Your task to perform on an android device: Open network settings Image 0: 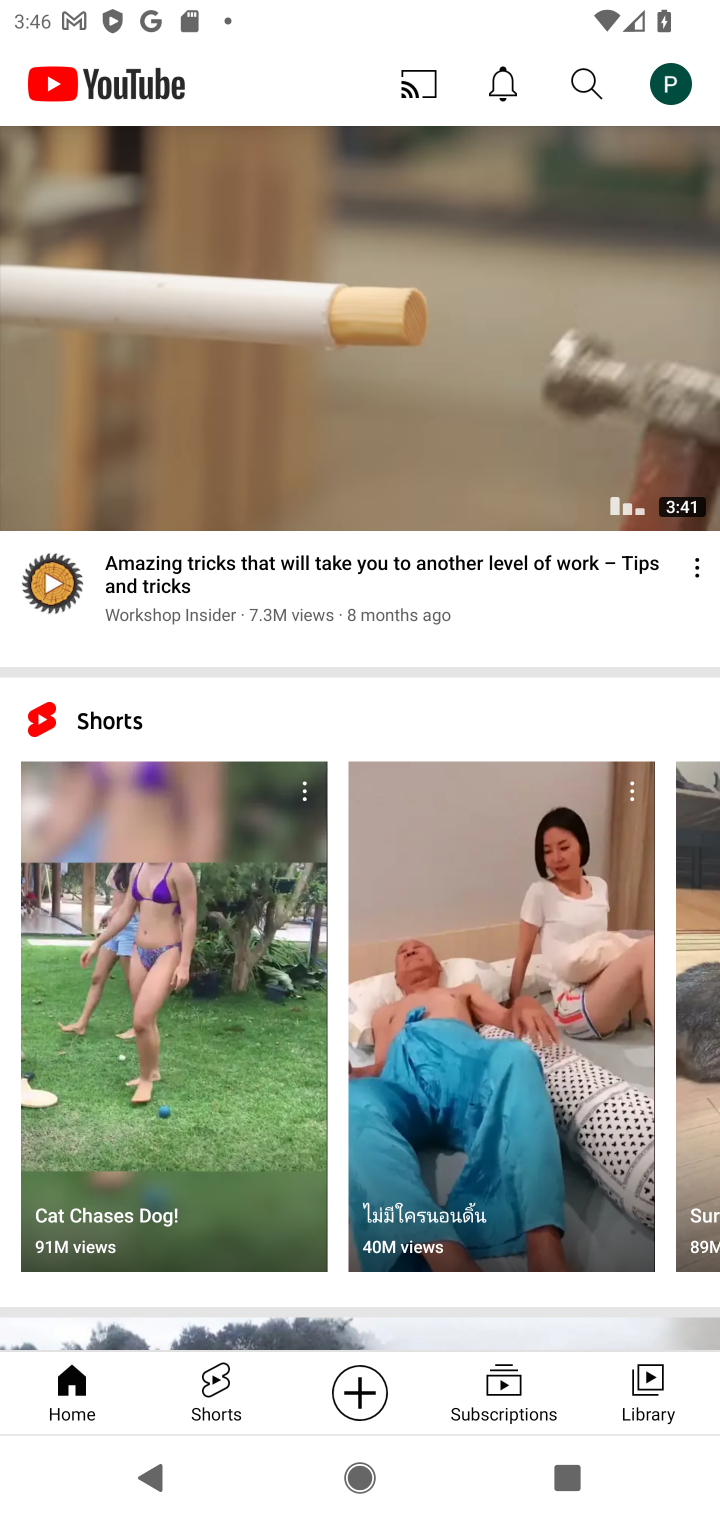
Step 0: press home button
Your task to perform on an android device: Open network settings Image 1: 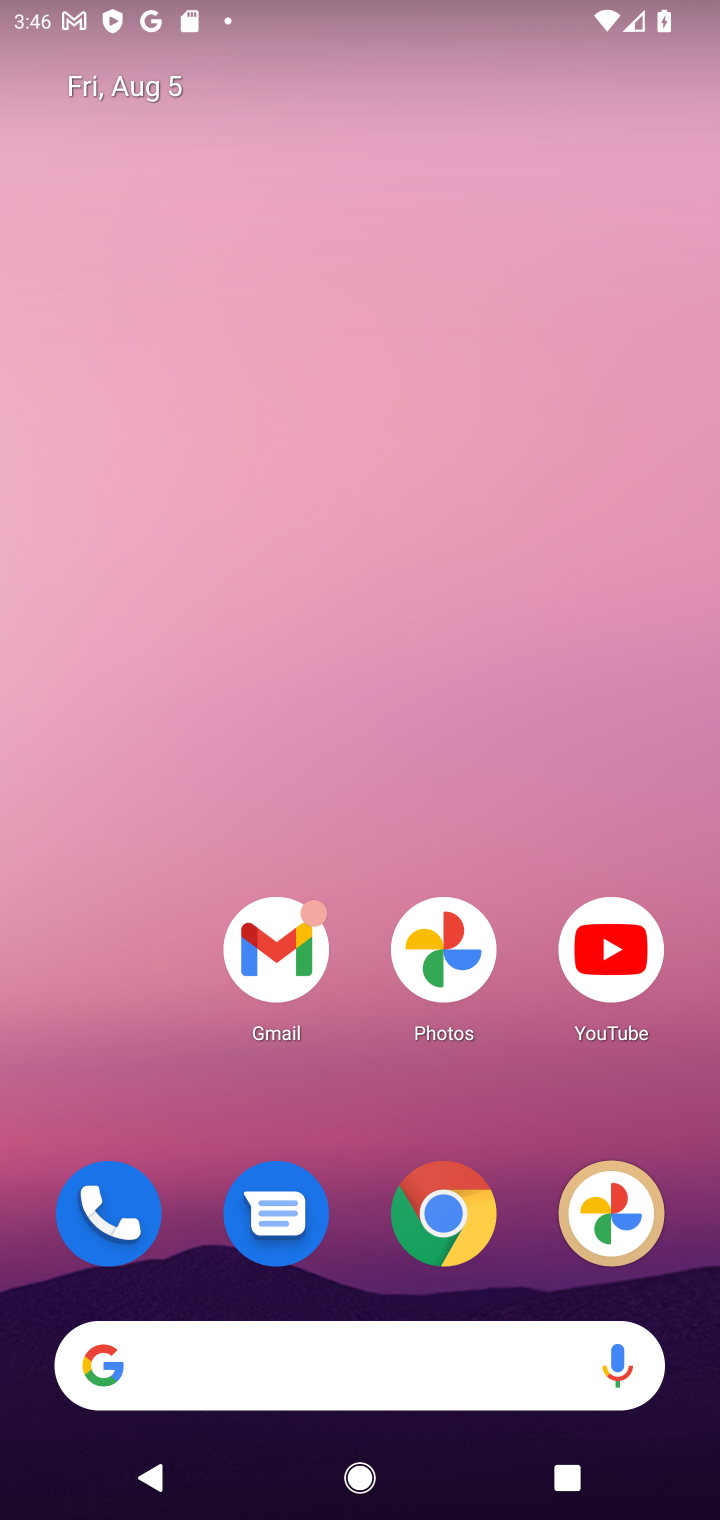
Step 1: drag from (337, 1297) to (404, 26)
Your task to perform on an android device: Open network settings Image 2: 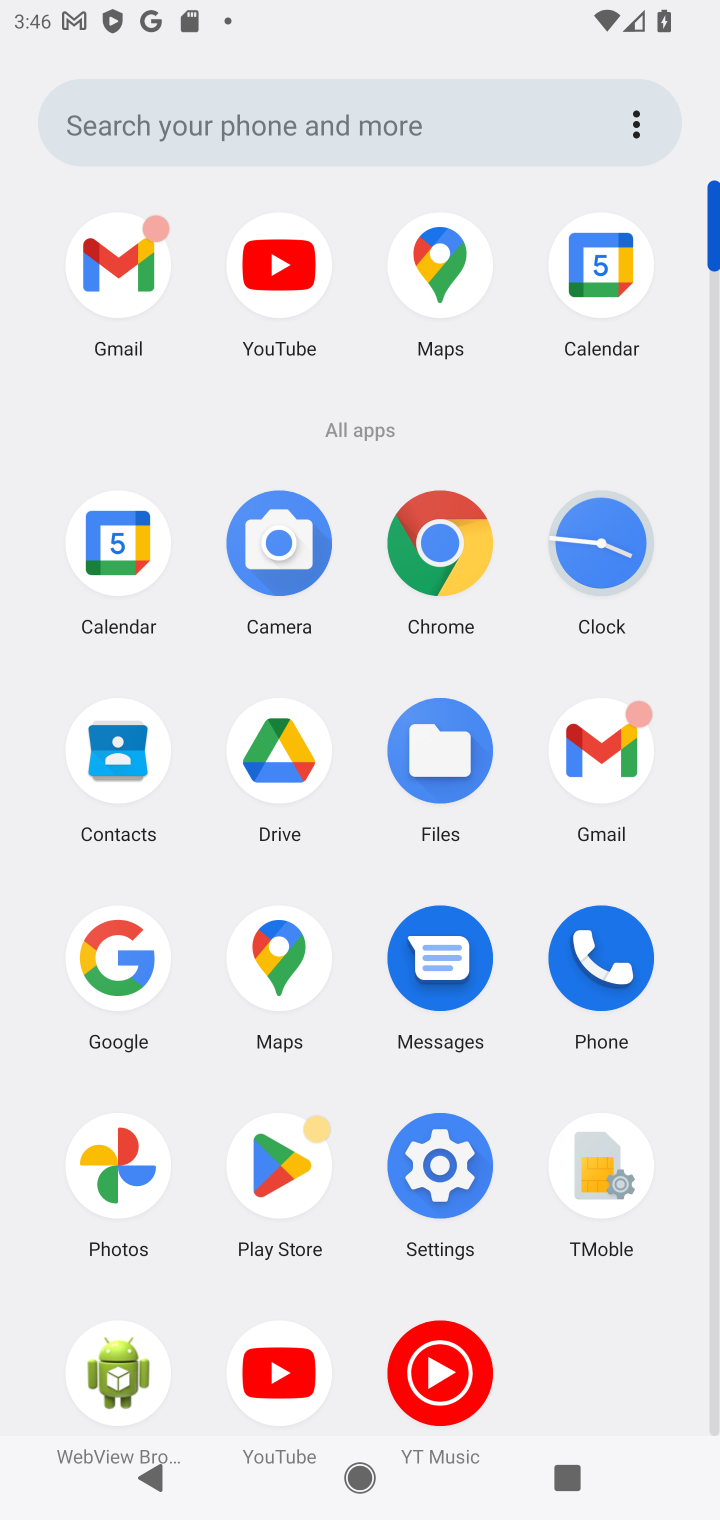
Step 2: click (427, 1220)
Your task to perform on an android device: Open network settings Image 3: 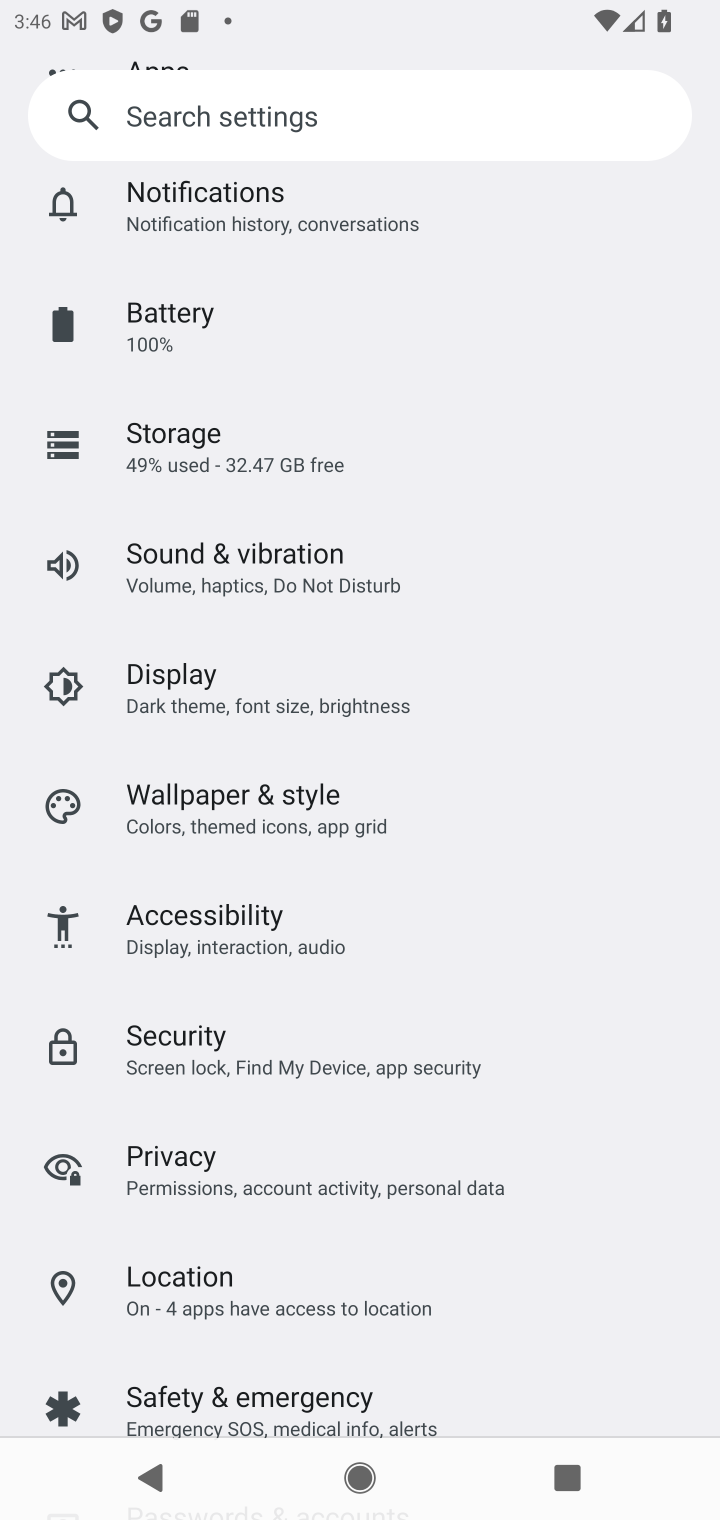
Step 3: click (440, 1211)
Your task to perform on an android device: Open network settings Image 4: 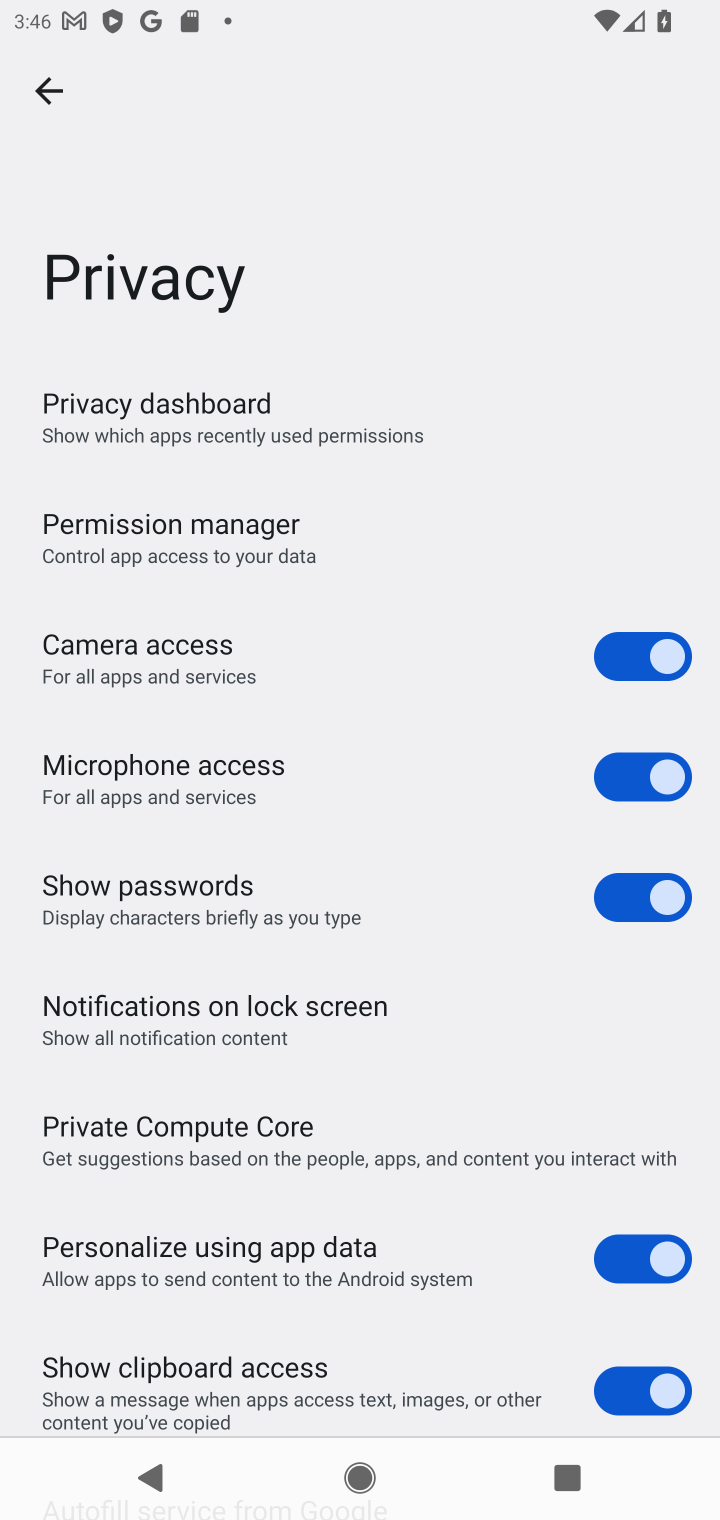
Step 4: task complete